Your task to perform on an android device: Show me recent news Image 0: 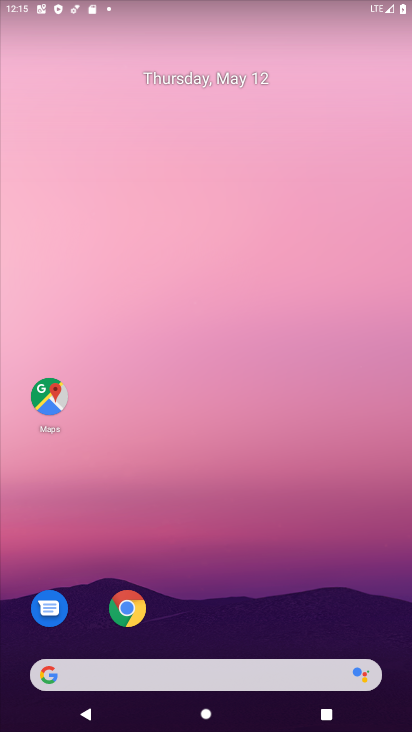
Step 0: click (130, 677)
Your task to perform on an android device: Show me recent news Image 1: 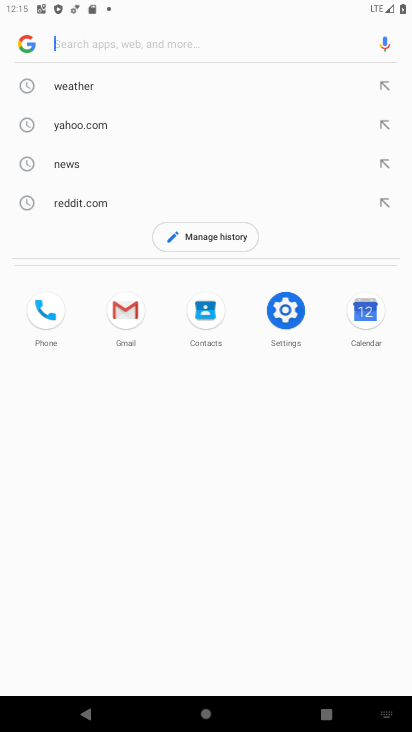
Step 1: click (88, 47)
Your task to perform on an android device: Show me recent news Image 2: 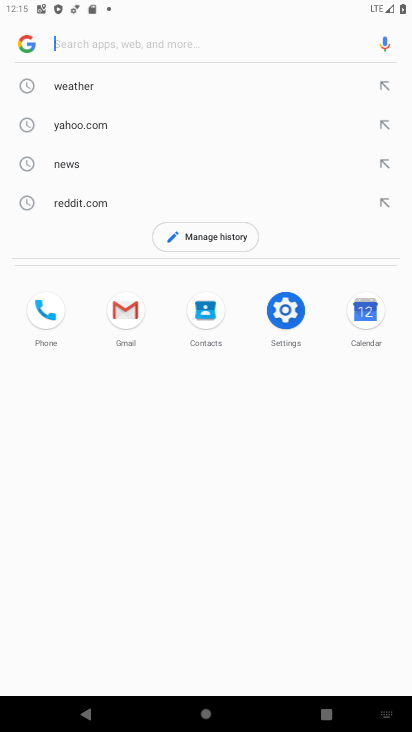
Step 2: type "recent news"
Your task to perform on an android device: Show me recent news Image 3: 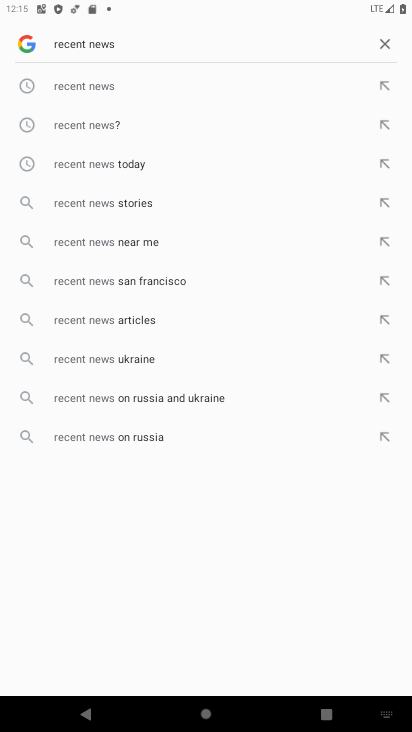
Step 3: click (105, 93)
Your task to perform on an android device: Show me recent news Image 4: 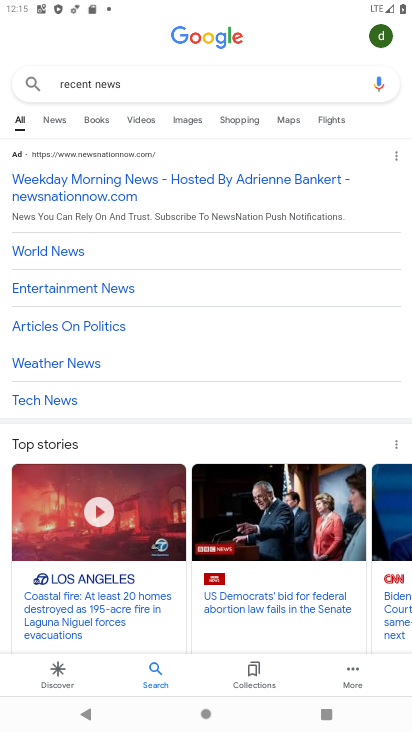
Step 4: click (56, 118)
Your task to perform on an android device: Show me recent news Image 5: 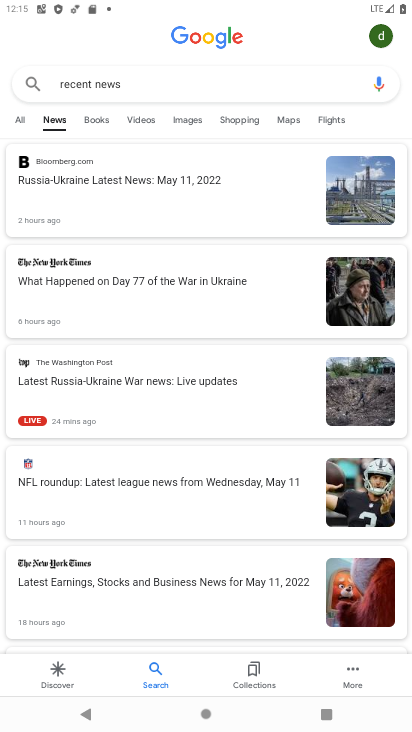
Step 5: click (180, 382)
Your task to perform on an android device: Show me recent news Image 6: 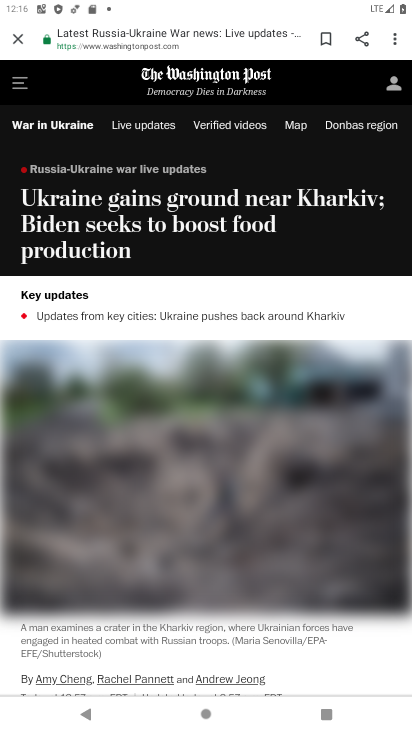
Step 6: task complete